Your task to perform on an android device: Open settings on Google Maps Image 0: 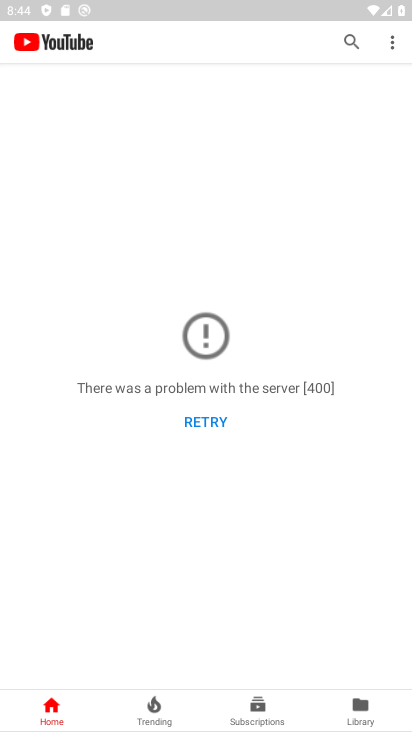
Step 0: press home button
Your task to perform on an android device: Open settings on Google Maps Image 1: 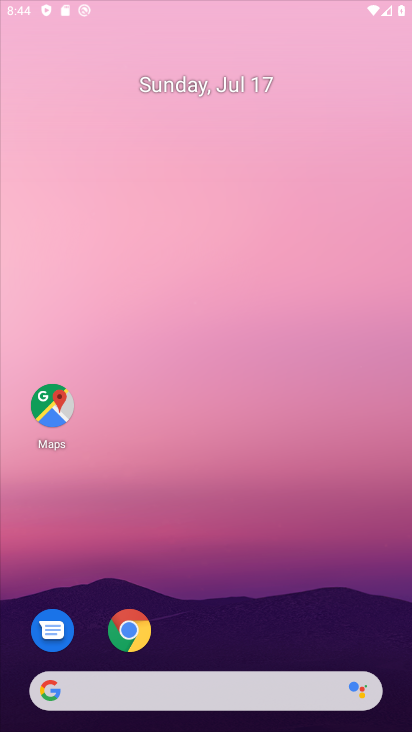
Step 1: drag from (352, 435) to (377, 0)
Your task to perform on an android device: Open settings on Google Maps Image 2: 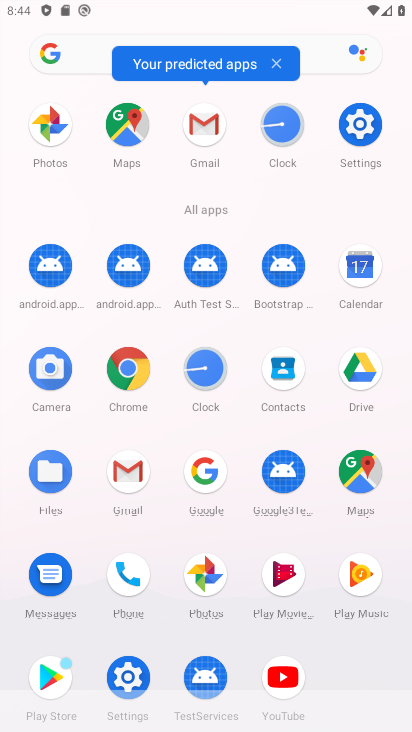
Step 2: click (346, 484)
Your task to perform on an android device: Open settings on Google Maps Image 3: 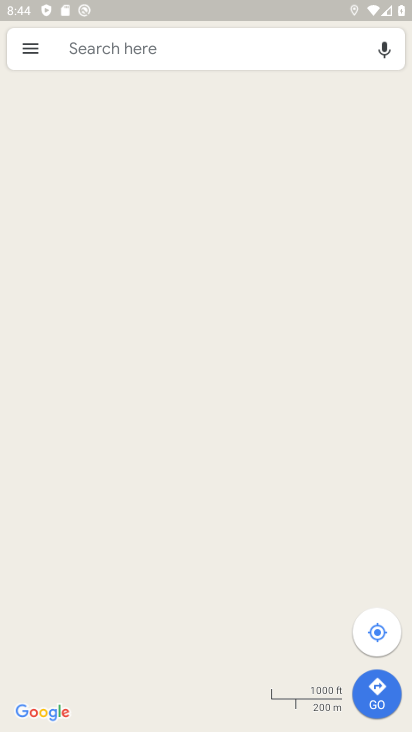
Step 3: click (37, 51)
Your task to perform on an android device: Open settings on Google Maps Image 4: 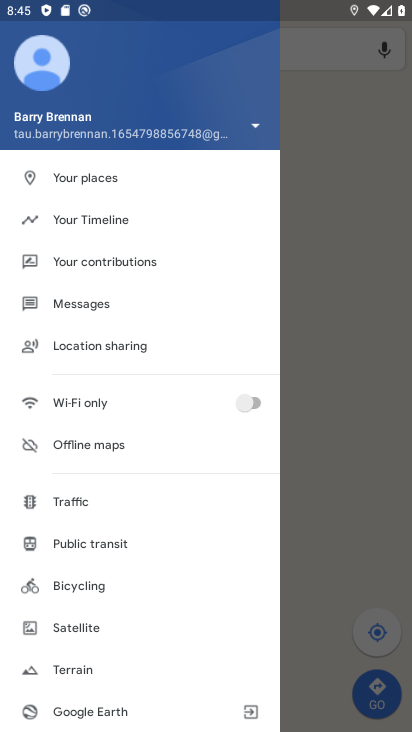
Step 4: click (94, 214)
Your task to perform on an android device: Open settings on Google Maps Image 5: 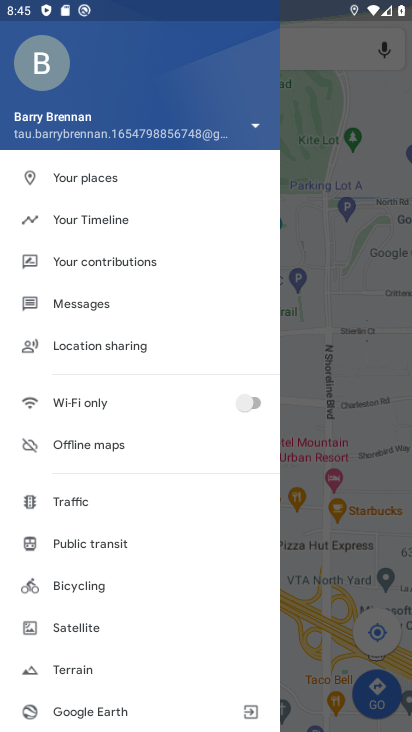
Step 5: click (82, 220)
Your task to perform on an android device: Open settings on Google Maps Image 6: 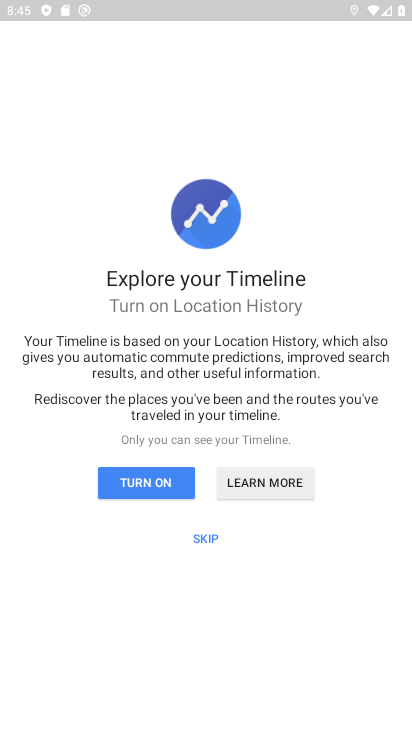
Step 6: click (200, 536)
Your task to perform on an android device: Open settings on Google Maps Image 7: 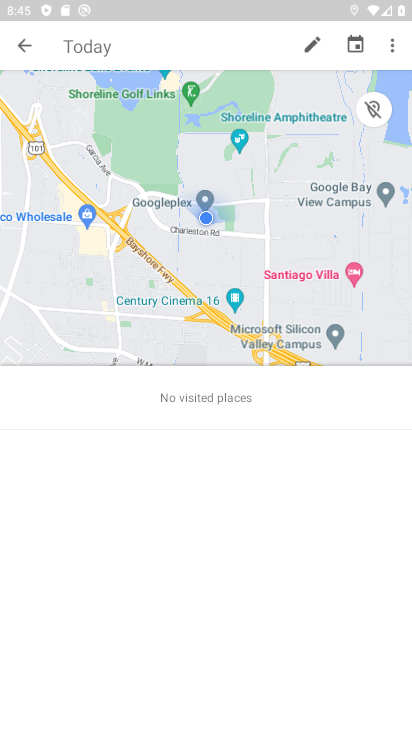
Step 7: click (386, 41)
Your task to perform on an android device: Open settings on Google Maps Image 8: 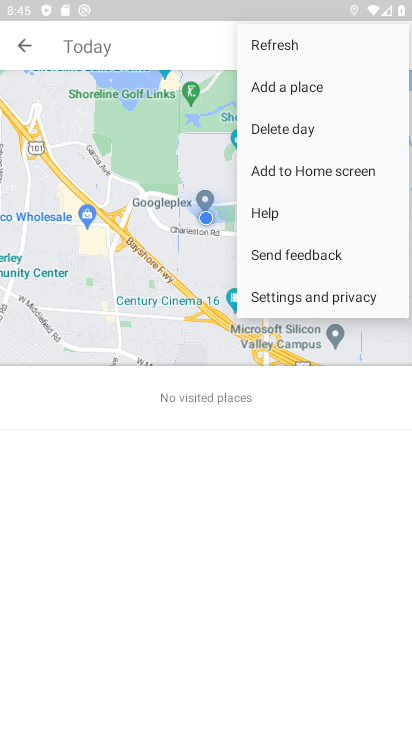
Step 8: click (307, 301)
Your task to perform on an android device: Open settings on Google Maps Image 9: 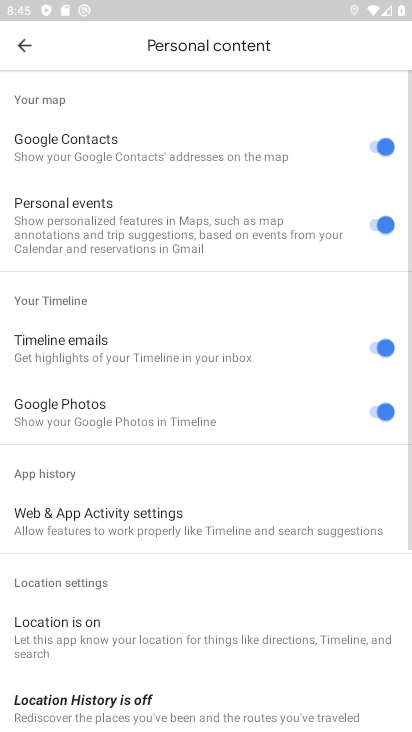
Step 9: task complete